Your task to perform on an android device: open wifi settings Image 0: 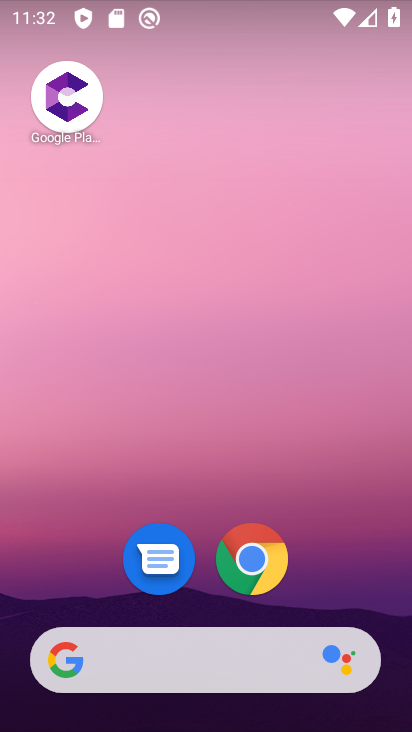
Step 0: drag from (382, 580) to (333, 133)
Your task to perform on an android device: open wifi settings Image 1: 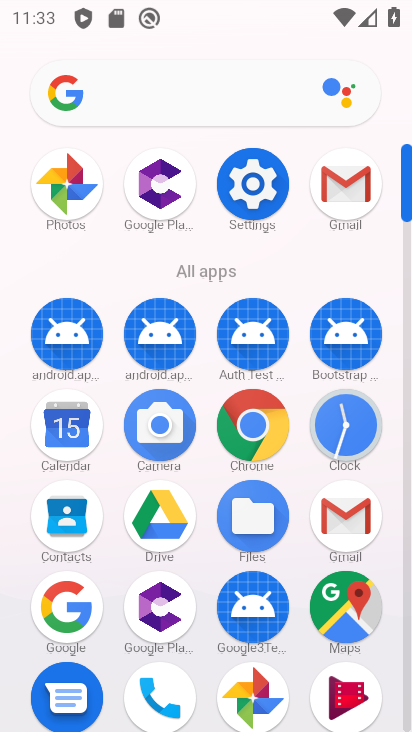
Step 1: click (264, 168)
Your task to perform on an android device: open wifi settings Image 2: 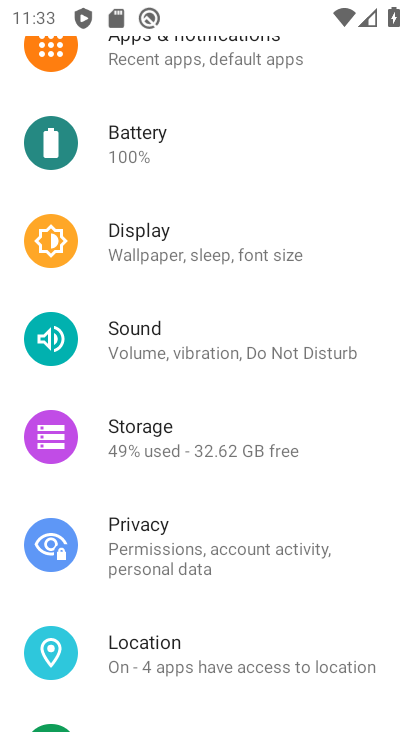
Step 2: drag from (236, 233) to (238, 558)
Your task to perform on an android device: open wifi settings Image 3: 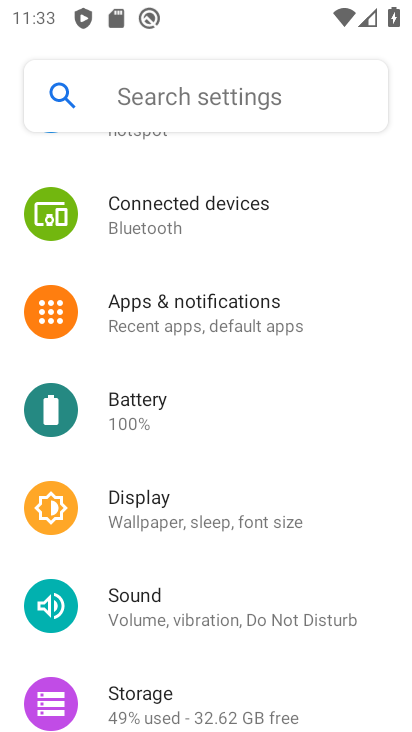
Step 3: drag from (242, 267) to (250, 605)
Your task to perform on an android device: open wifi settings Image 4: 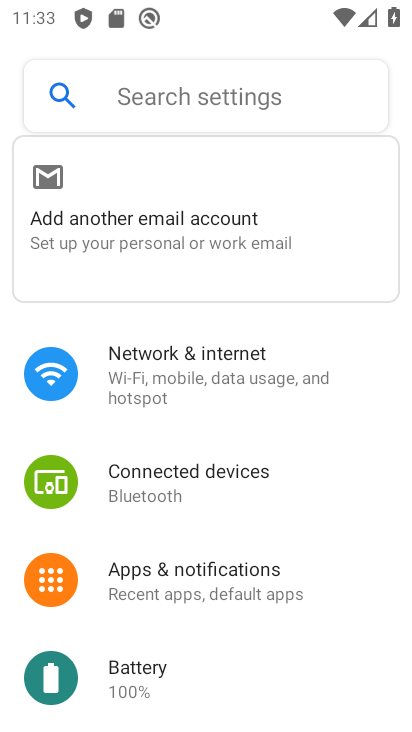
Step 4: click (259, 363)
Your task to perform on an android device: open wifi settings Image 5: 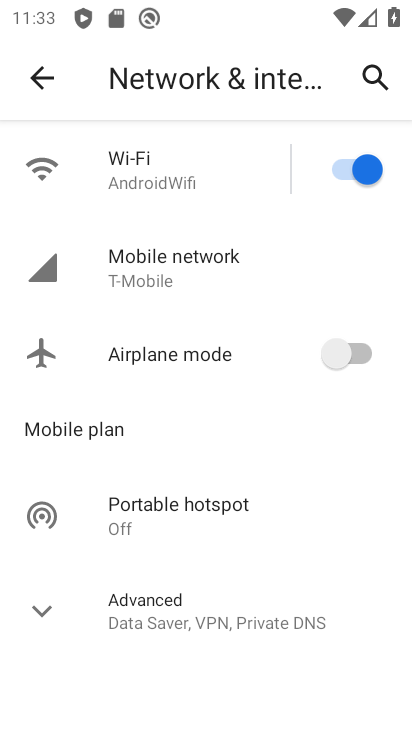
Step 5: click (235, 213)
Your task to perform on an android device: open wifi settings Image 6: 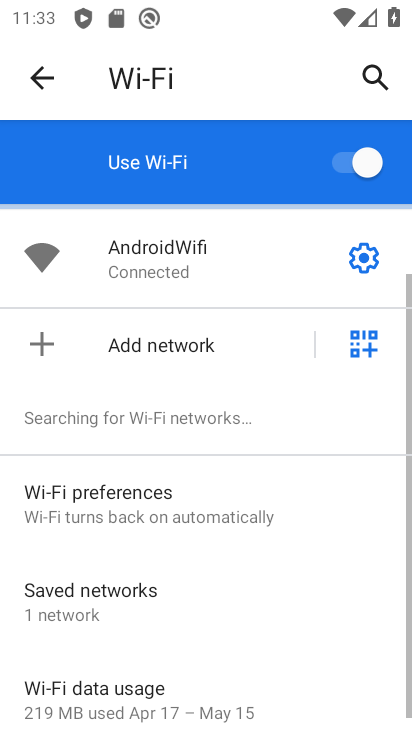
Step 6: click (383, 270)
Your task to perform on an android device: open wifi settings Image 7: 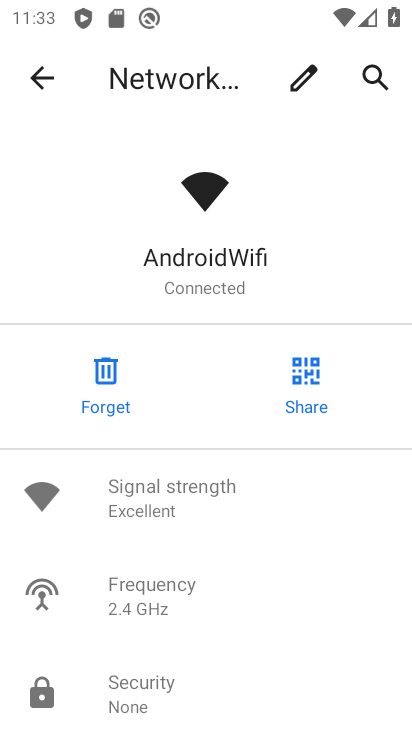
Step 7: task complete